Your task to perform on an android device: turn on airplane mode Image 0: 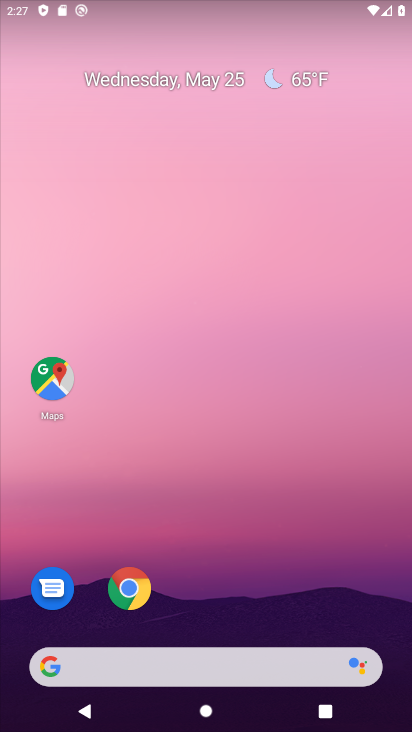
Step 0: drag from (226, 627) to (275, 232)
Your task to perform on an android device: turn on airplane mode Image 1: 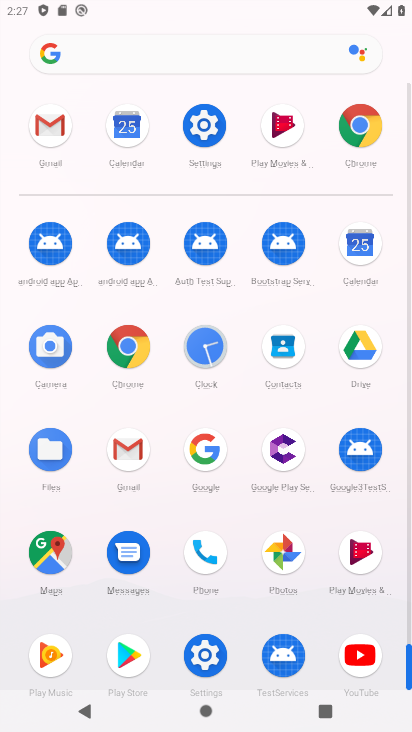
Step 1: click (204, 119)
Your task to perform on an android device: turn on airplane mode Image 2: 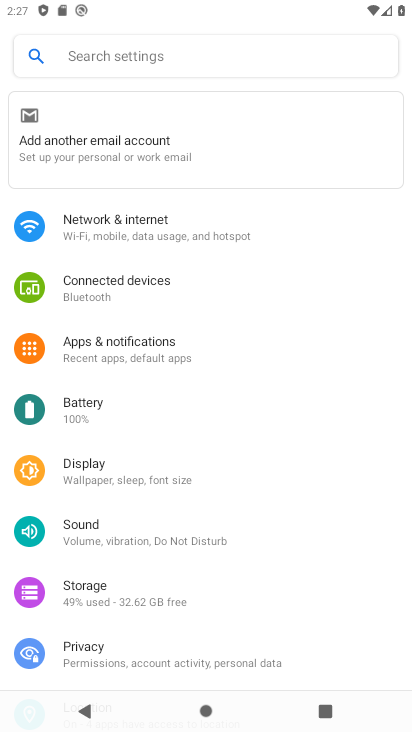
Step 2: click (111, 225)
Your task to perform on an android device: turn on airplane mode Image 3: 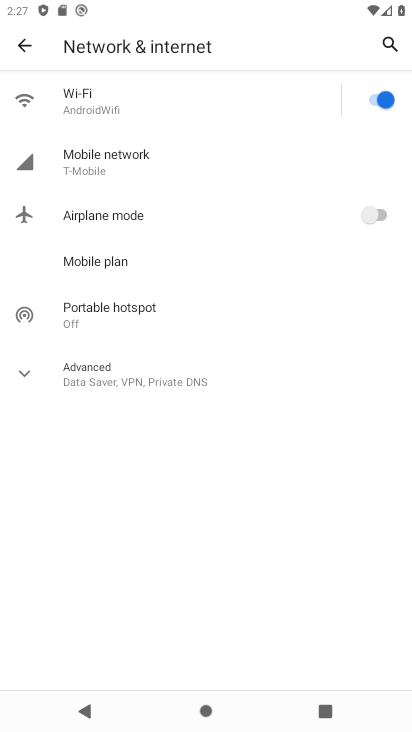
Step 3: click (370, 211)
Your task to perform on an android device: turn on airplane mode Image 4: 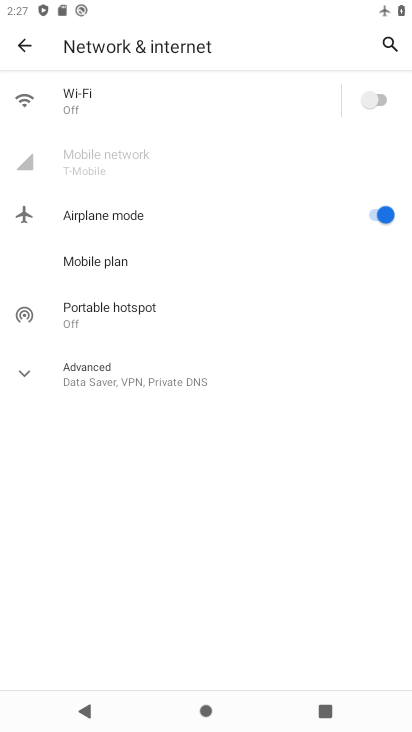
Step 4: task complete